Your task to perform on an android device: turn pop-ups on in chrome Image 0: 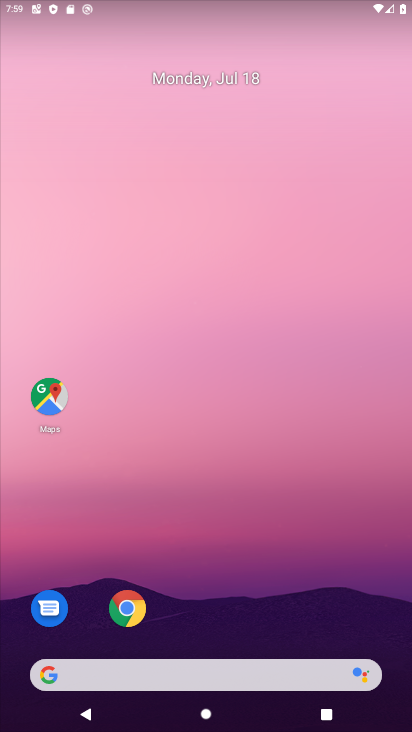
Step 0: click (44, 402)
Your task to perform on an android device: turn pop-ups on in chrome Image 1: 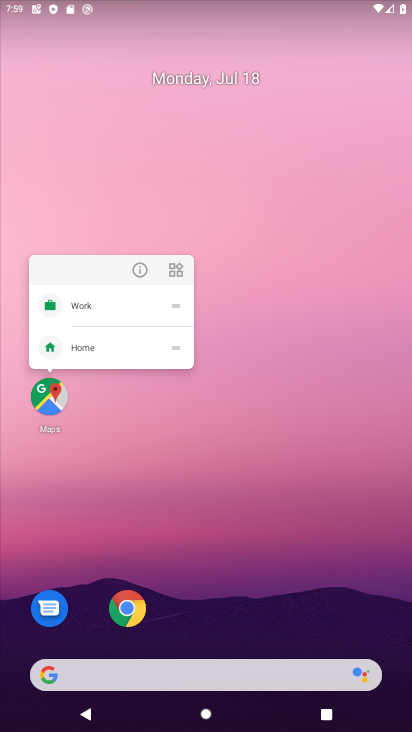
Step 1: click (59, 377)
Your task to perform on an android device: turn pop-ups on in chrome Image 2: 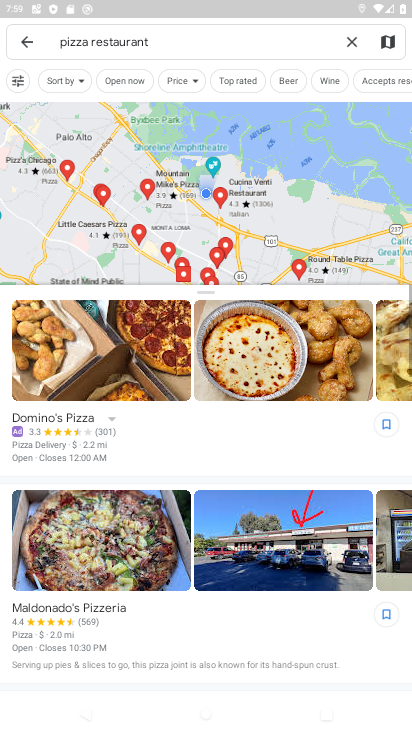
Step 2: click (342, 40)
Your task to perform on an android device: turn pop-ups on in chrome Image 3: 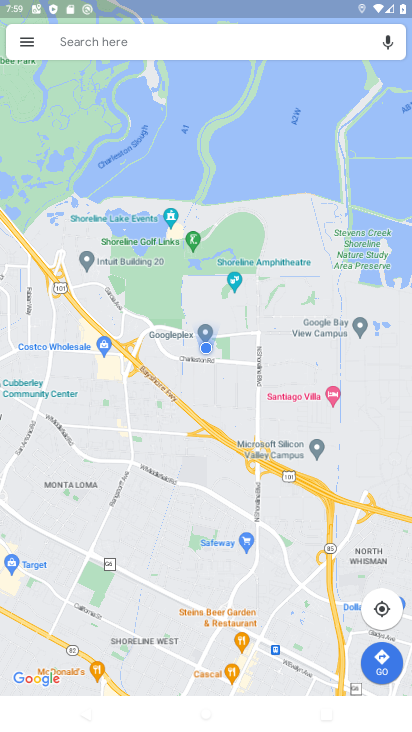
Step 3: press home button
Your task to perform on an android device: turn pop-ups on in chrome Image 4: 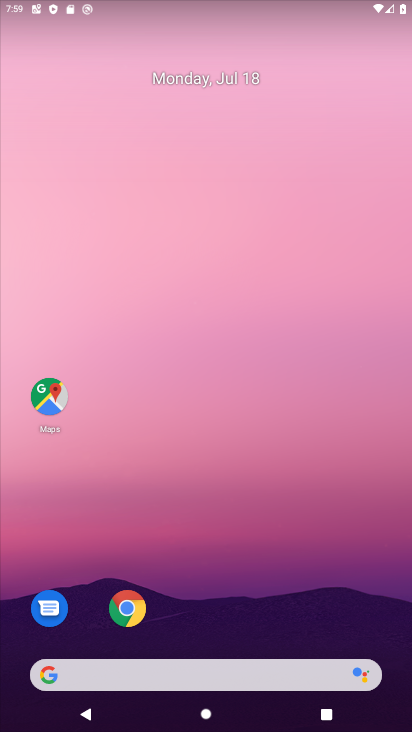
Step 4: click (125, 610)
Your task to perform on an android device: turn pop-ups on in chrome Image 5: 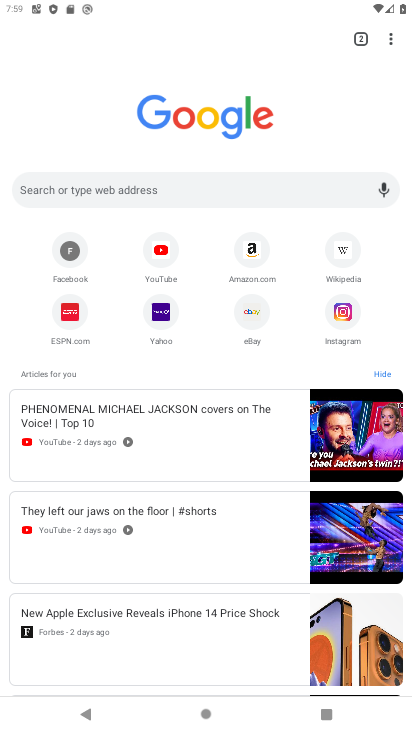
Step 5: click (393, 34)
Your task to perform on an android device: turn pop-ups on in chrome Image 6: 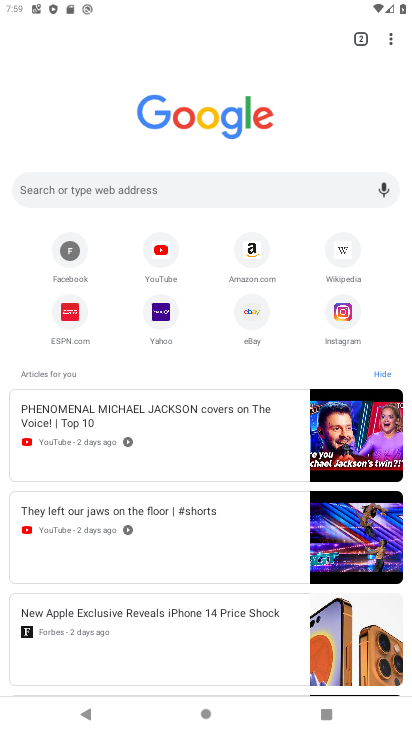
Step 6: click (390, 34)
Your task to perform on an android device: turn pop-ups on in chrome Image 7: 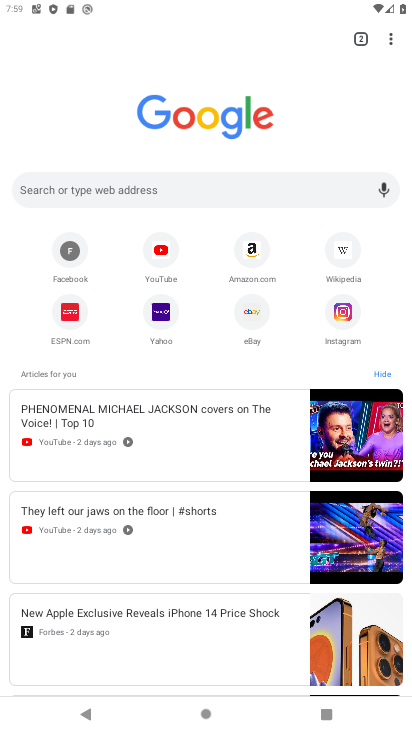
Step 7: click (391, 25)
Your task to perform on an android device: turn pop-ups on in chrome Image 8: 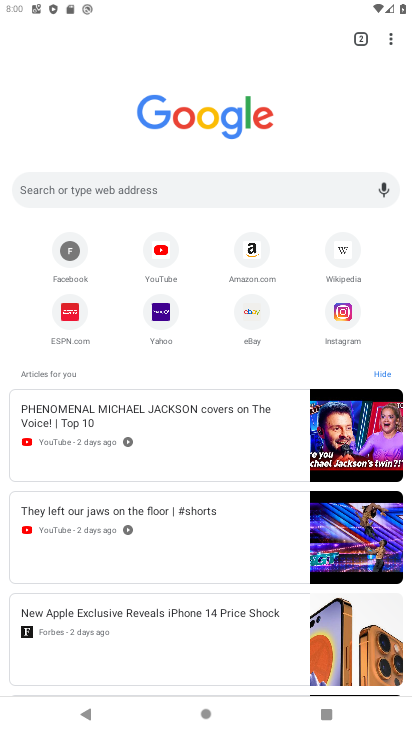
Step 8: task complete